Your task to perform on an android device: search for starred emails in the gmail app Image 0: 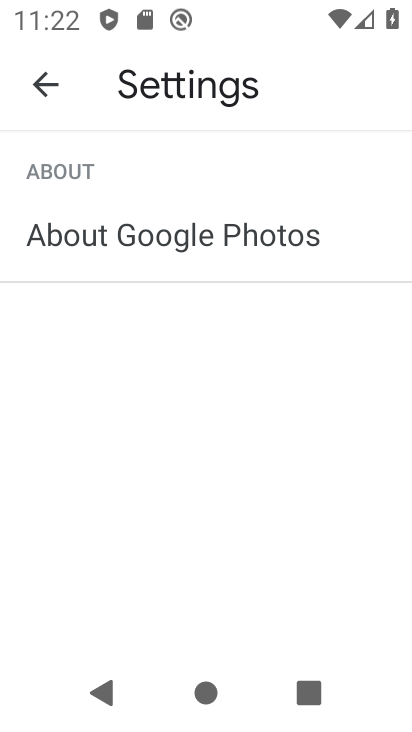
Step 0: press home button
Your task to perform on an android device: search for starred emails in the gmail app Image 1: 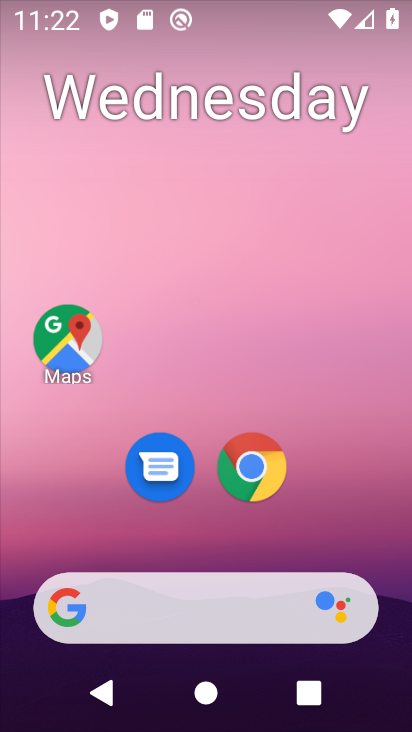
Step 1: drag from (332, 527) to (293, 146)
Your task to perform on an android device: search for starred emails in the gmail app Image 2: 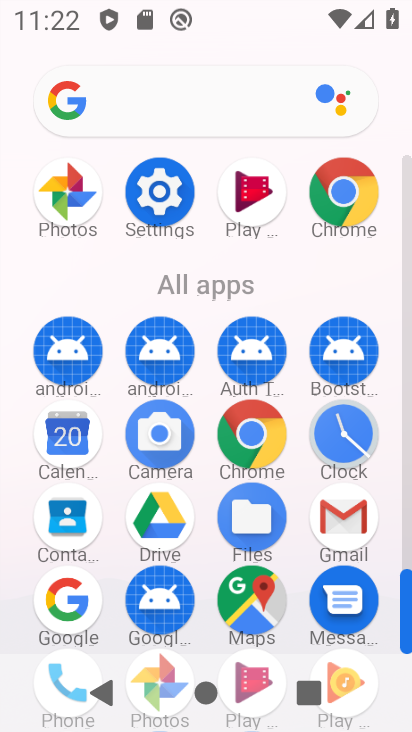
Step 2: drag from (206, 309) to (208, 158)
Your task to perform on an android device: search for starred emails in the gmail app Image 3: 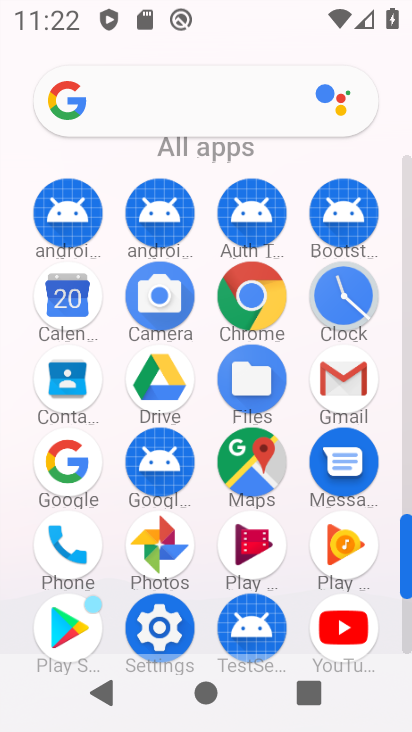
Step 3: click (337, 374)
Your task to perform on an android device: search for starred emails in the gmail app Image 4: 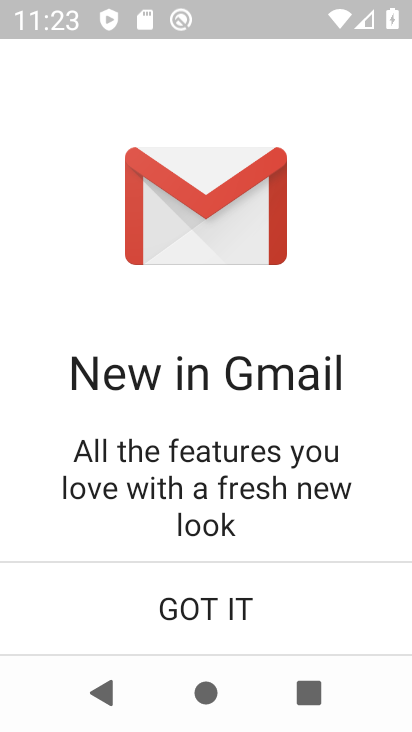
Step 4: click (200, 617)
Your task to perform on an android device: search for starred emails in the gmail app Image 5: 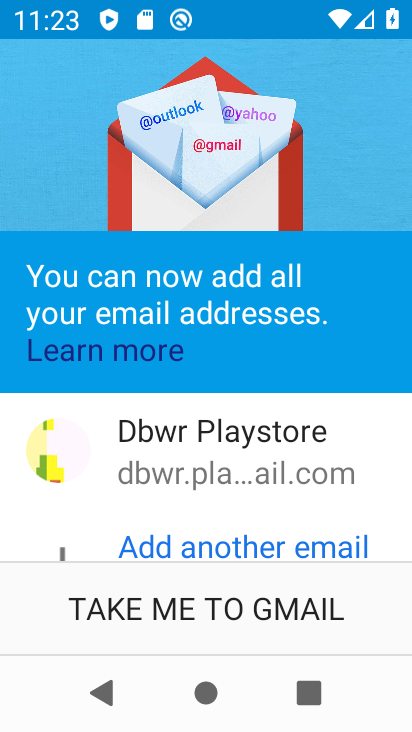
Step 5: click (199, 624)
Your task to perform on an android device: search for starred emails in the gmail app Image 6: 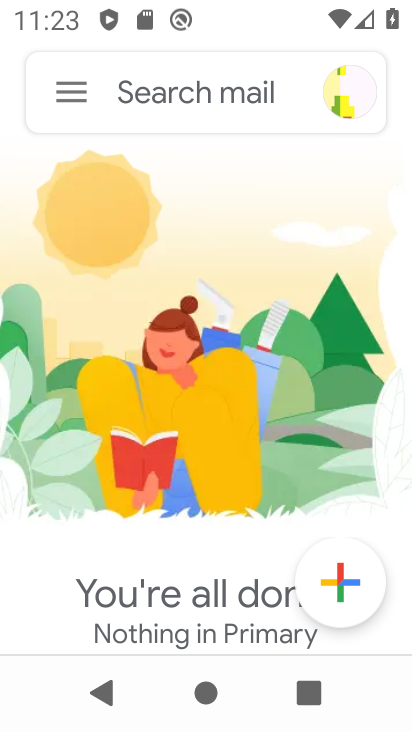
Step 6: click (74, 101)
Your task to perform on an android device: search for starred emails in the gmail app Image 7: 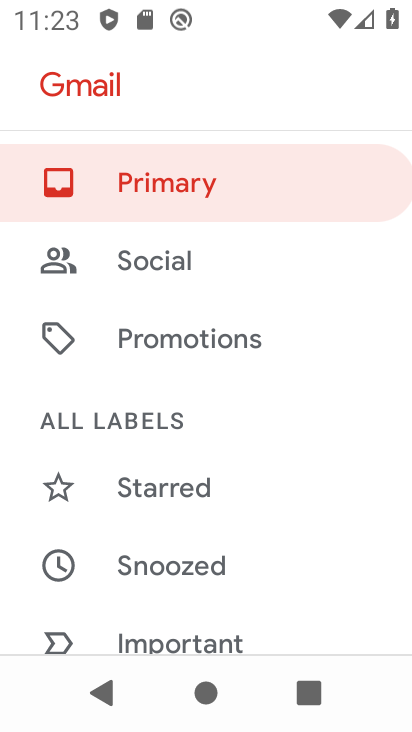
Step 7: click (160, 481)
Your task to perform on an android device: search for starred emails in the gmail app Image 8: 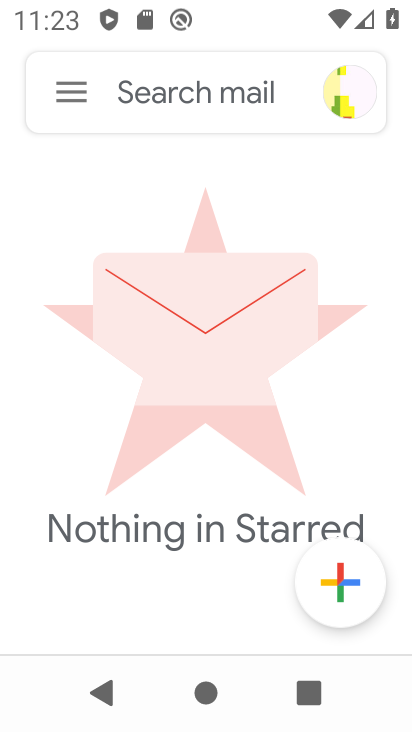
Step 8: task complete